Your task to perform on an android device: change your default location settings in chrome Image 0: 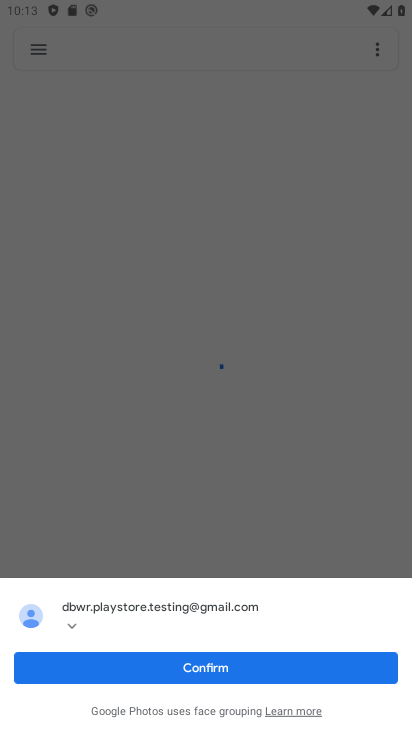
Step 0: press home button
Your task to perform on an android device: change your default location settings in chrome Image 1: 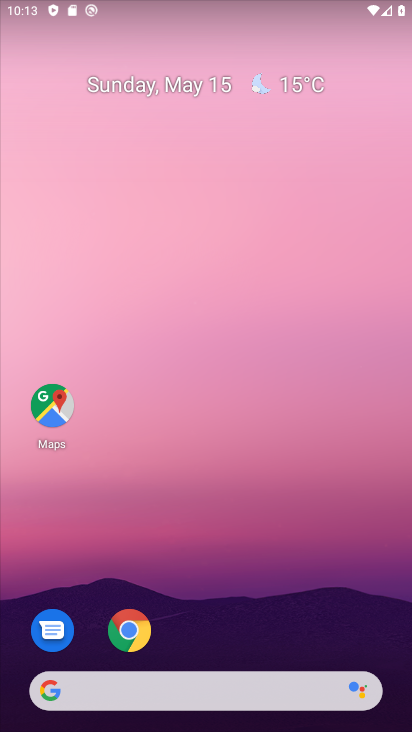
Step 1: click (133, 631)
Your task to perform on an android device: change your default location settings in chrome Image 2: 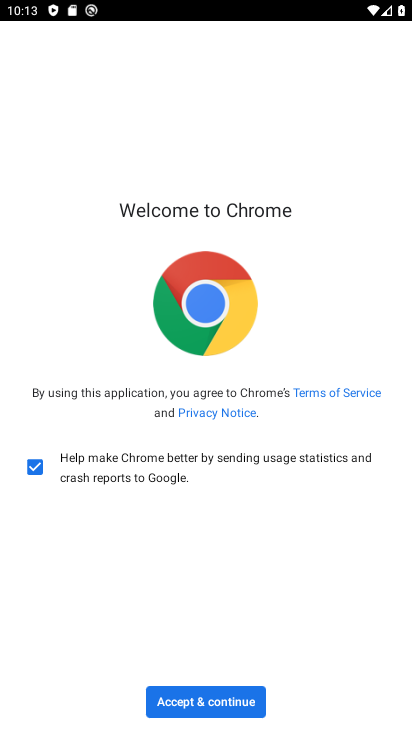
Step 2: click (232, 703)
Your task to perform on an android device: change your default location settings in chrome Image 3: 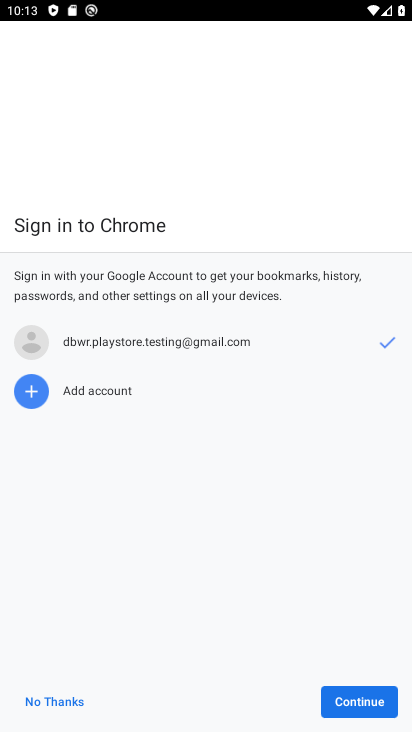
Step 3: click (366, 698)
Your task to perform on an android device: change your default location settings in chrome Image 4: 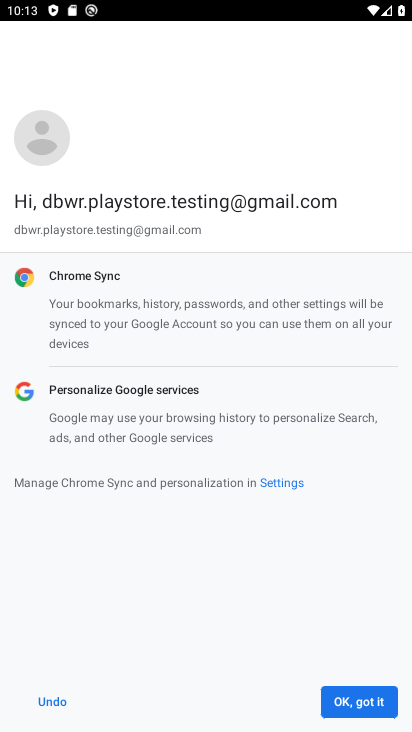
Step 4: click (354, 698)
Your task to perform on an android device: change your default location settings in chrome Image 5: 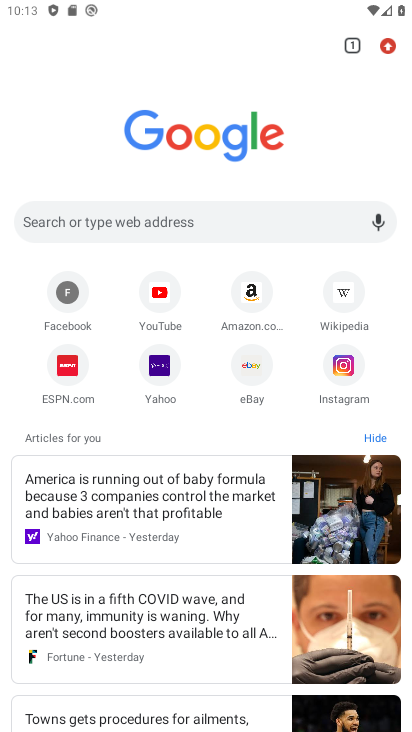
Step 5: click (386, 51)
Your task to perform on an android device: change your default location settings in chrome Image 6: 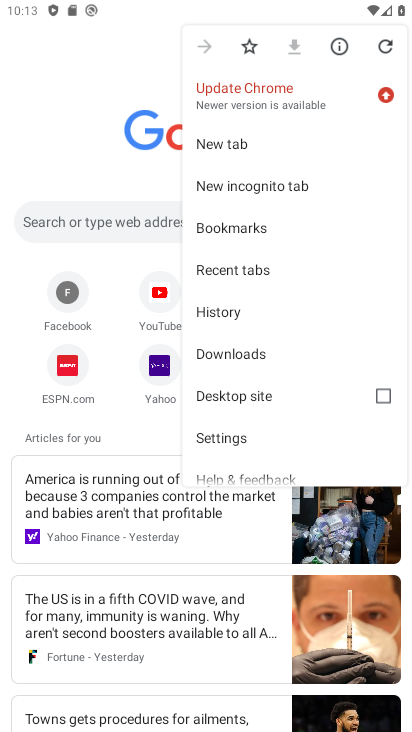
Step 6: click (231, 432)
Your task to perform on an android device: change your default location settings in chrome Image 7: 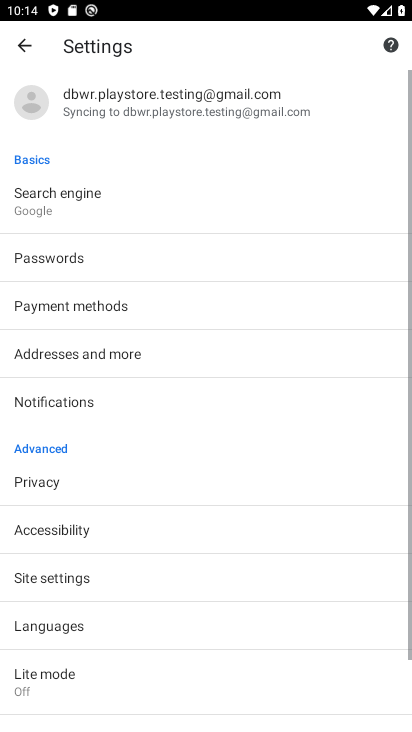
Step 7: drag from (103, 599) to (109, 429)
Your task to perform on an android device: change your default location settings in chrome Image 8: 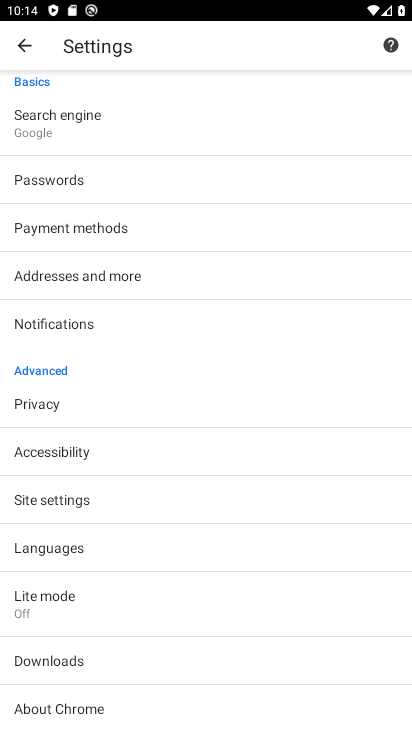
Step 8: click (81, 494)
Your task to perform on an android device: change your default location settings in chrome Image 9: 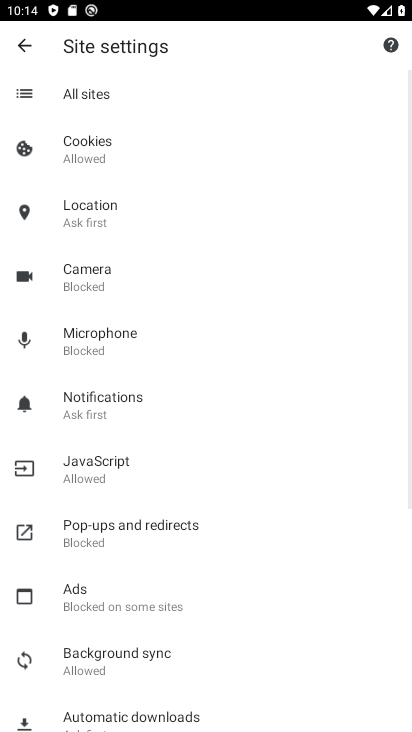
Step 9: click (80, 494)
Your task to perform on an android device: change your default location settings in chrome Image 10: 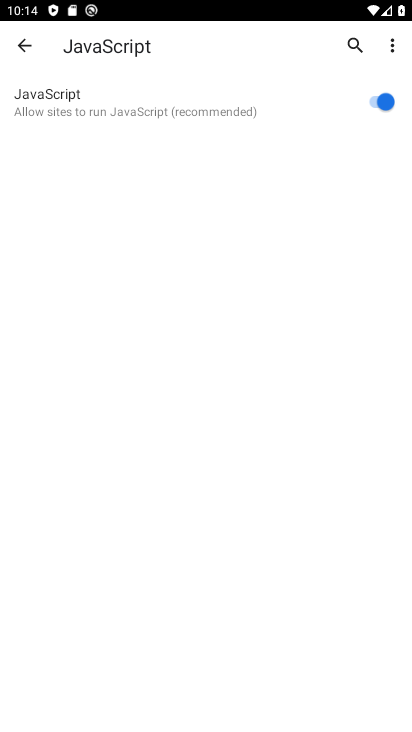
Step 10: click (378, 96)
Your task to perform on an android device: change your default location settings in chrome Image 11: 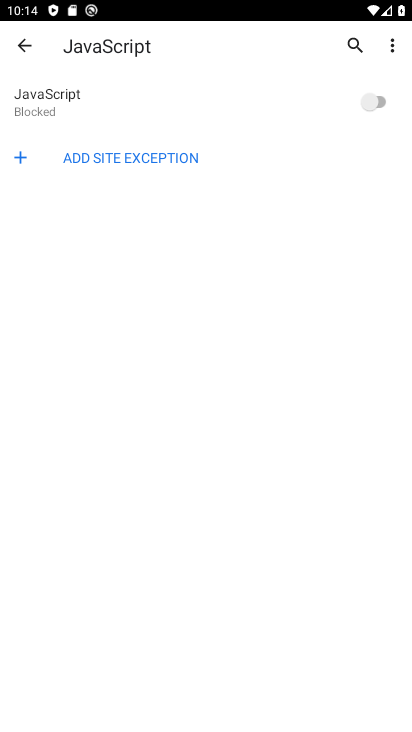
Step 11: task complete